Your task to perform on an android device: Go to eBay Image 0: 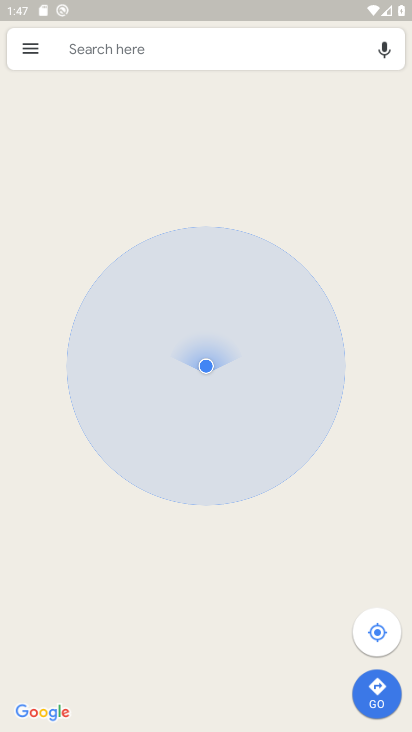
Step 0: press home button
Your task to perform on an android device: Go to eBay Image 1: 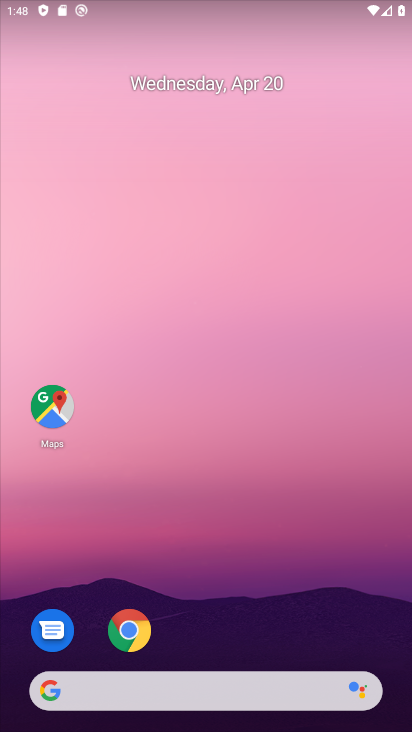
Step 1: click (129, 640)
Your task to perform on an android device: Go to eBay Image 2: 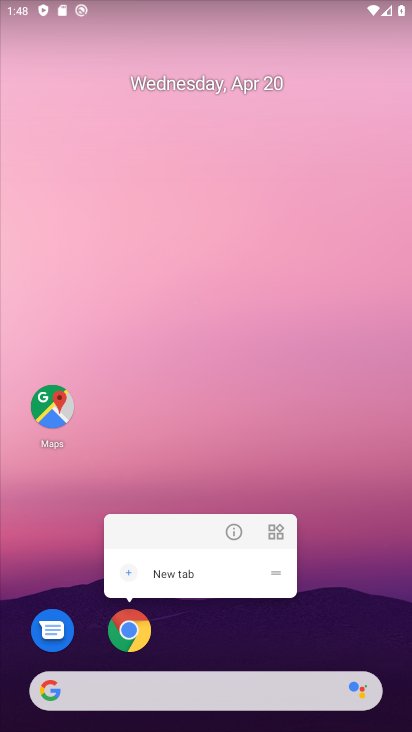
Step 2: drag from (334, 605) to (213, 250)
Your task to perform on an android device: Go to eBay Image 3: 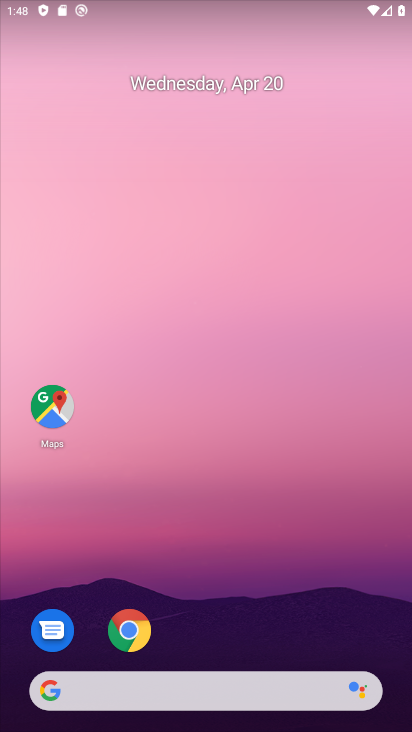
Step 3: drag from (344, 649) to (276, 229)
Your task to perform on an android device: Go to eBay Image 4: 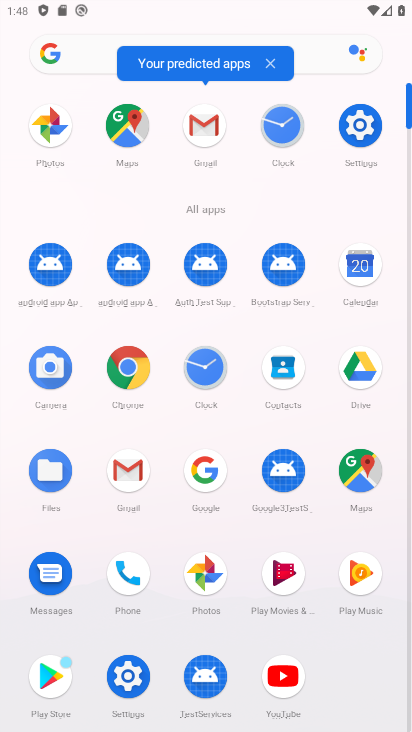
Step 4: click (140, 370)
Your task to perform on an android device: Go to eBay Image 5: 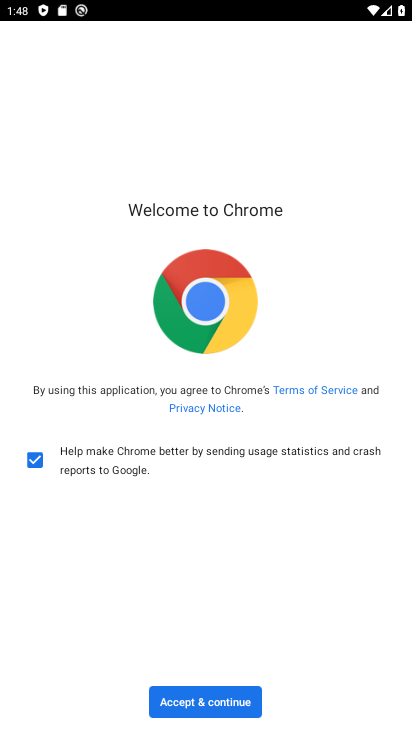
Step 5: click (184, 704)
Your task to perform on an android device: Go to eBay Image 6: 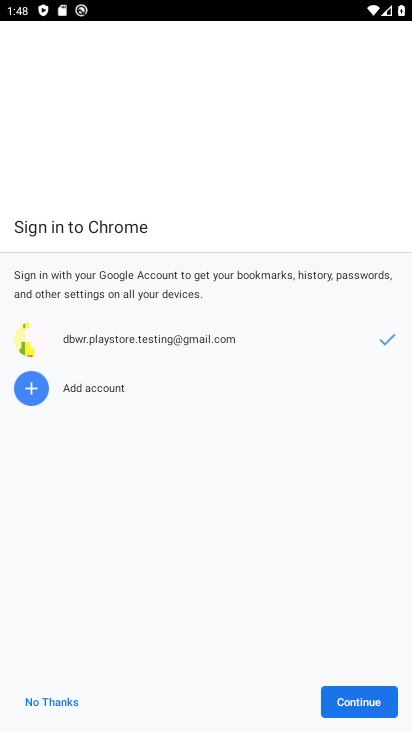
Step 6: click (366, 693)
Your task to perform on an android device: Go to eBay Image 7: 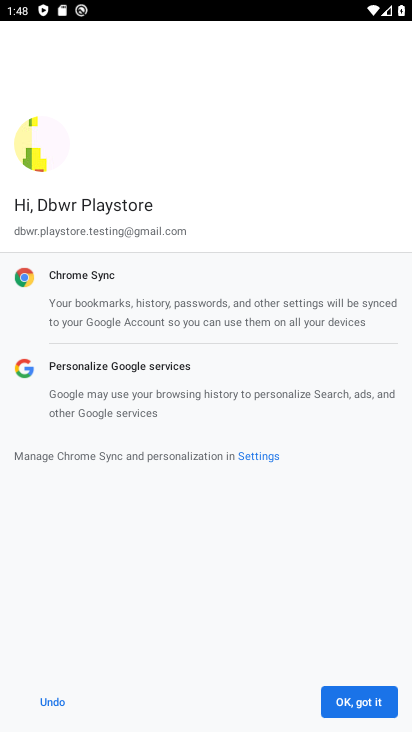
Step 7: click (366, 691)
Your task to perform on an android device: Go to eBay Image 8: 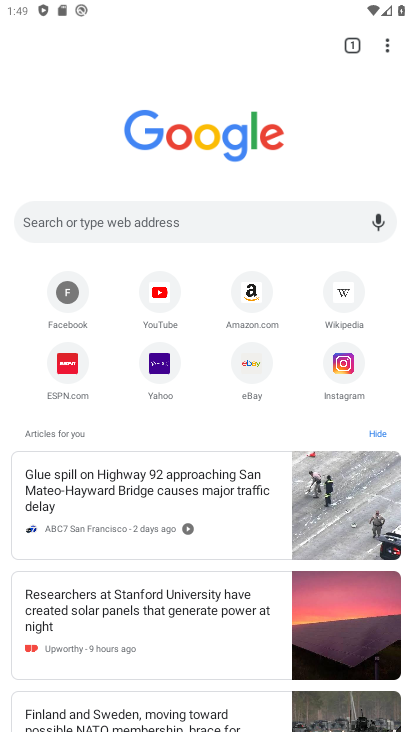
Step 8: click (245, 378)
Your task to perform on an android device: Go to eBay Image 9: 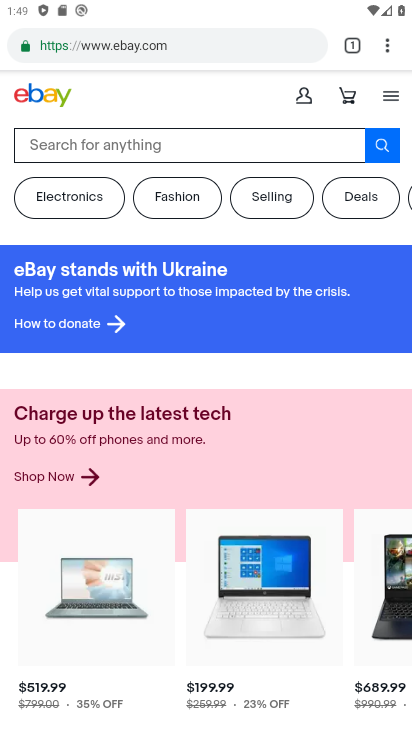
Step 9: task complete